Your task to perform on an android device: turn off notifications in google photos Image 0: 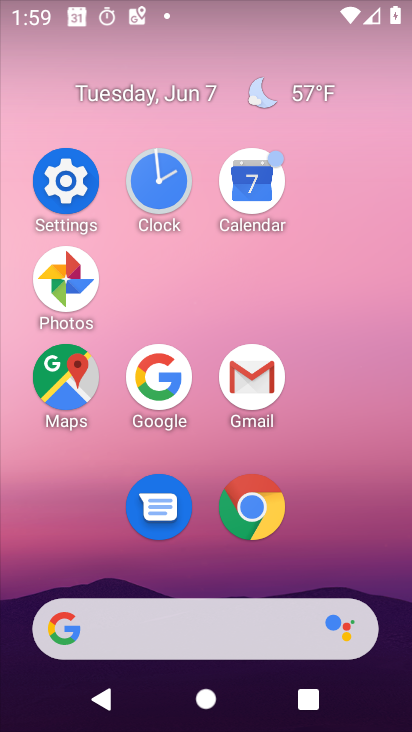
Step 0: click (72, 262)
Your task to perform on an android device: turn off notifications in google photos Image 1: 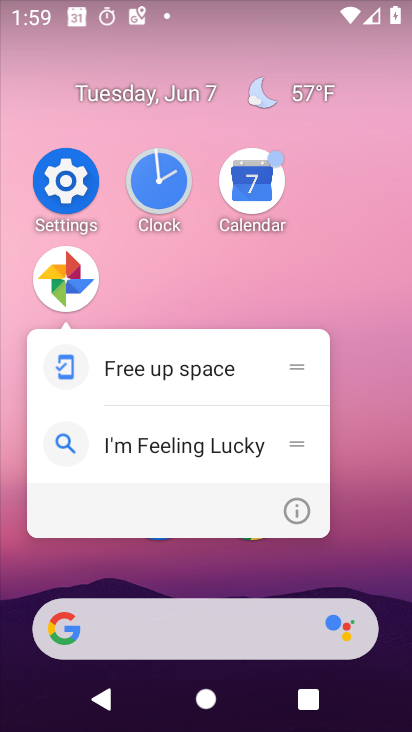
Step 1: click (72, 262)
Your task to perform on an android device: turn off notifications in google photos Image 2: 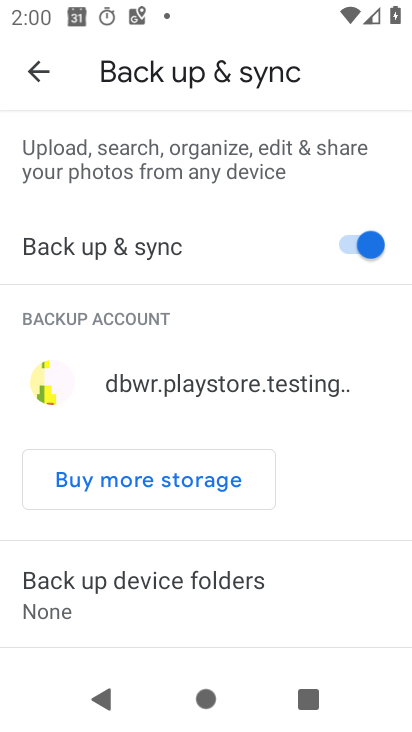
Step 2: click (29, 69)
Your task to perform on an android device: turn off notifications in google photos Image 3: 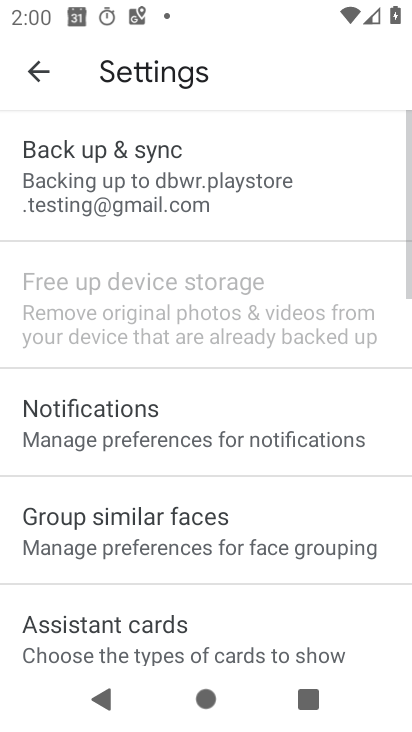
Step 3: click (243, 433)
Your task to perform on an android device: turn off notifications in google photos Image 4: 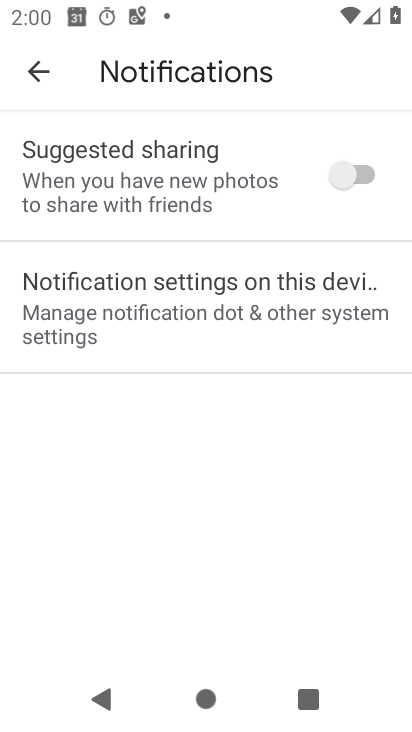
Step 4: click (215, 258)
Your task to perform on an android device: turn off notifications in google photos Image 5: 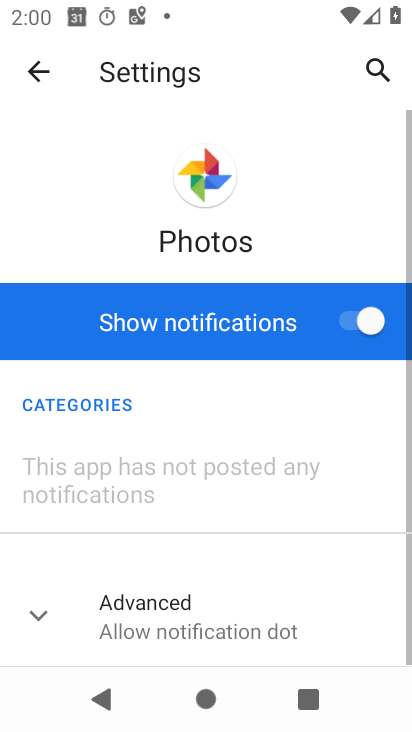
Step 5: click (326, 295)
Your task to perform on an android device: turn off notifications in google photos Image 6: 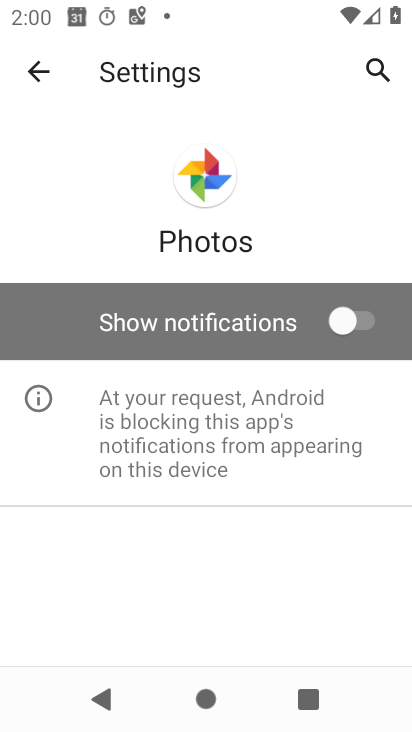
Step 6: task complete